Your task to perform on an android device: see sites visited before in the chrome app Image 0: 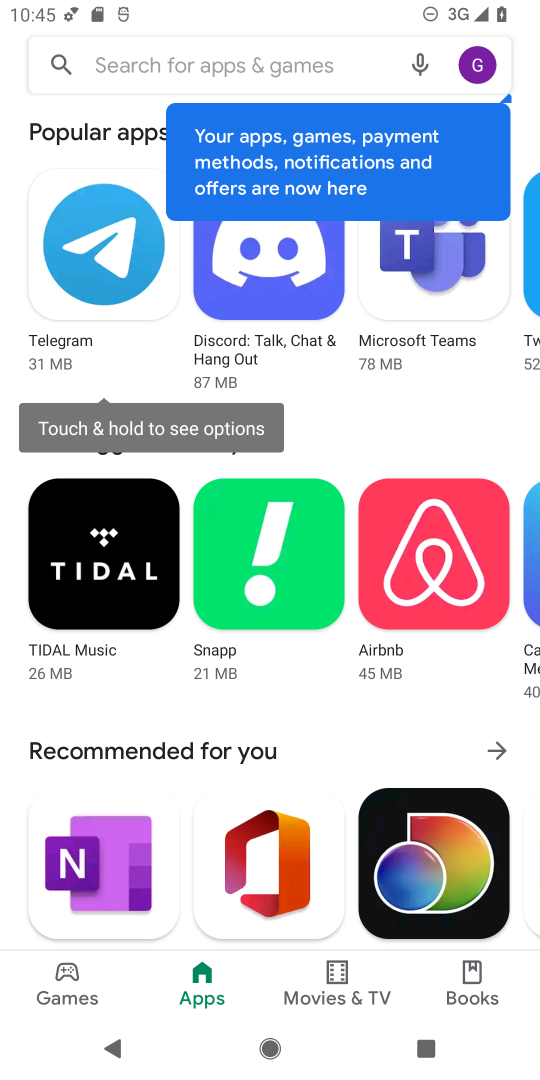
Step 0: press home button
Your task to perform on an android device: see sites visited before in the chrome app Image 1: 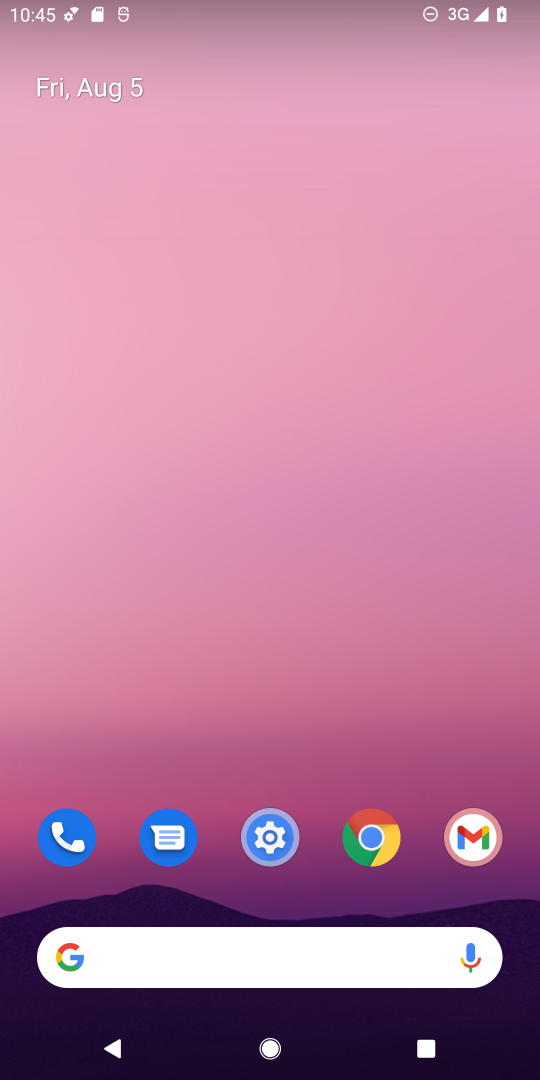
Step 1: click (374, 835)
Your task to perform on an android device: see sites visited before in the chrome app Image 2: 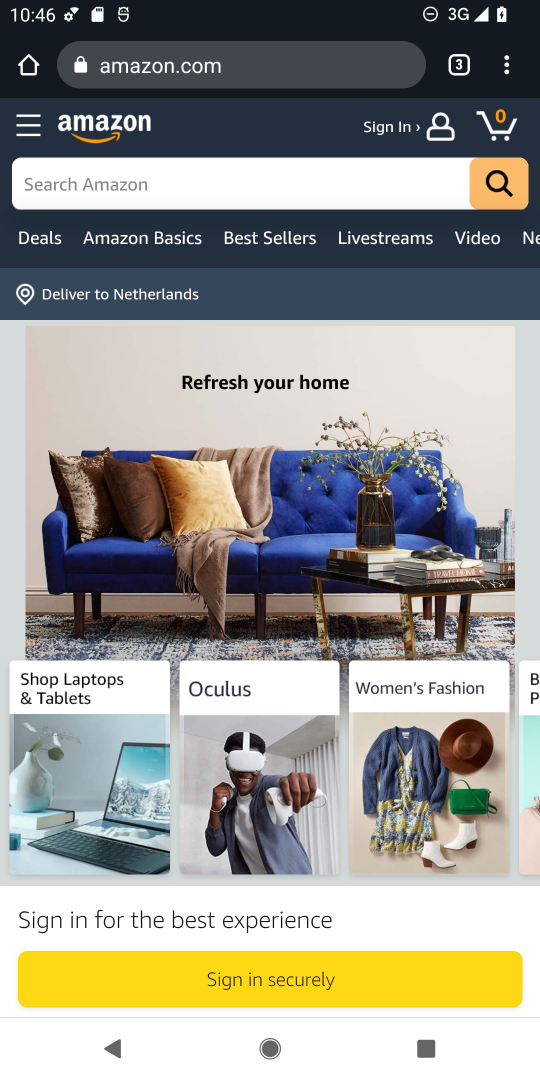
Step 2: click (509, 64)
Your task to perform on an android device: see sites visited before in the chrome app Image 3: 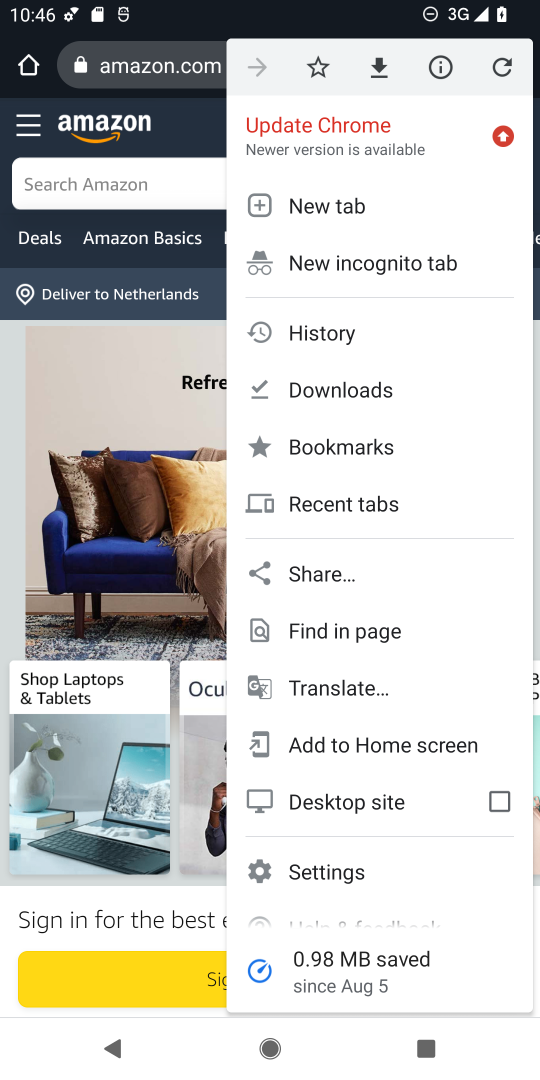
Step 3: click (380, 498)
Your task to perform on an android device: see sites visited before in the chrome app Image 4: 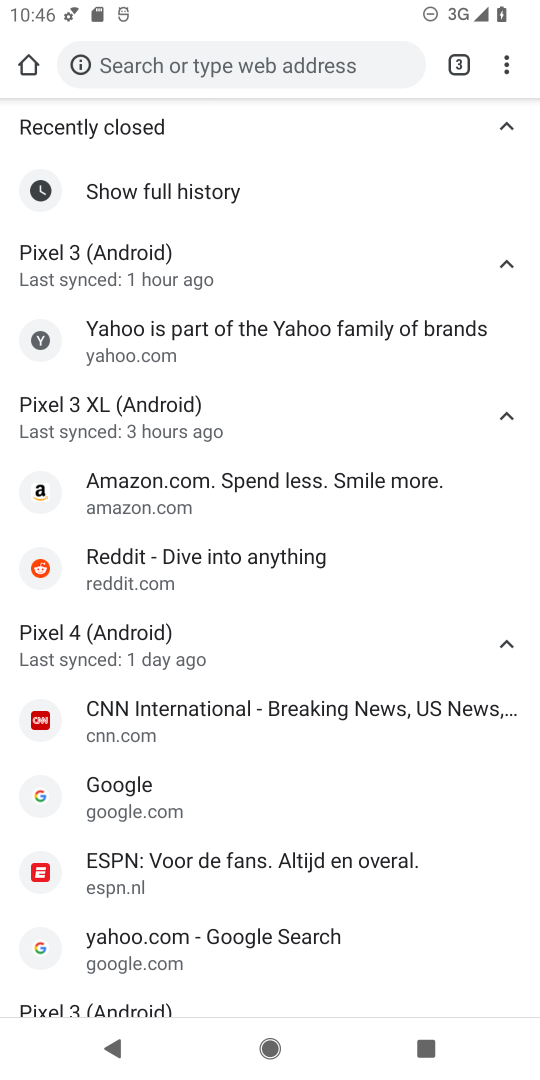
Step 4: task complete